Your task to perform on an android device: Open Chrome and go to the settings page Image 0: 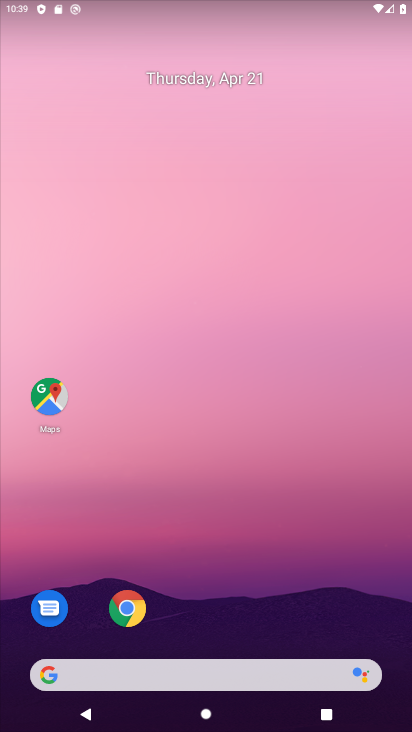
Step 0: drag from (182, 627) to (256, 104)
Your task to perform on an android device: Open Chrome and go to the settings page Image 1: 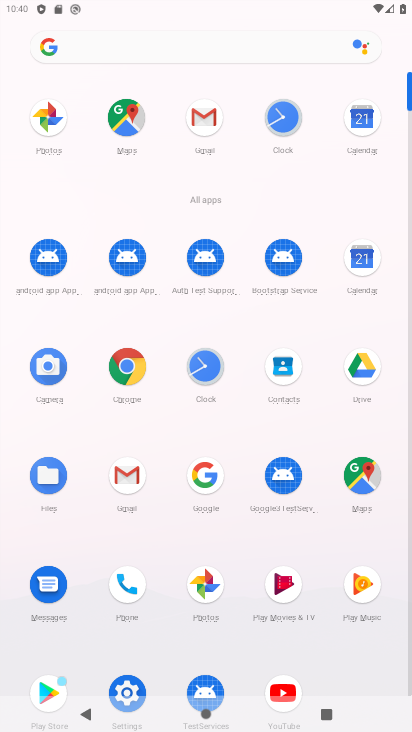
Step 1: click (130, 364)
Your task to perform on an android device: Open Chrome and go to the settings page Image 2: 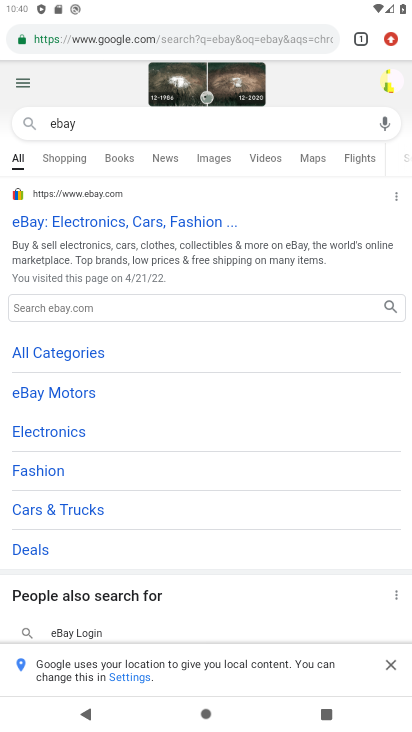
Step 2: click (392, 35)
Your task to perform on an android device: Open Chrome and go to the settings page Image 3: 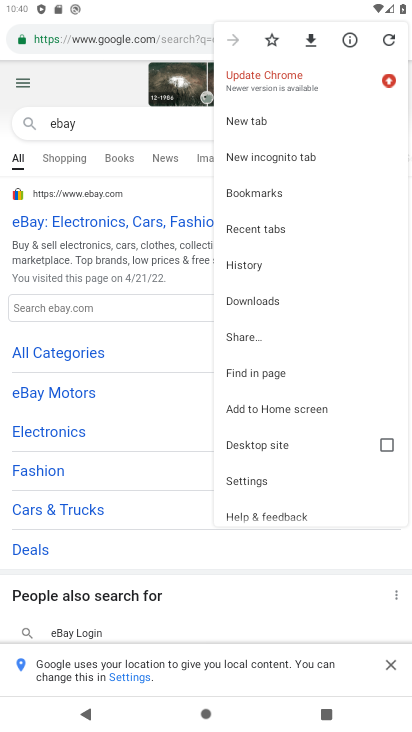
Step 3: click (271, 483)
Your task to perform on an android device: Open Chrome and go to the settings page Image 4: 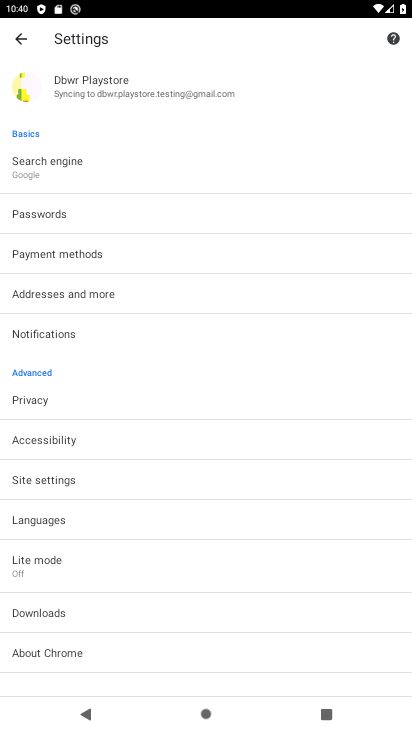
Step 4: task complete